Your task to perform on an android device: Open accessibility settings Image 0: 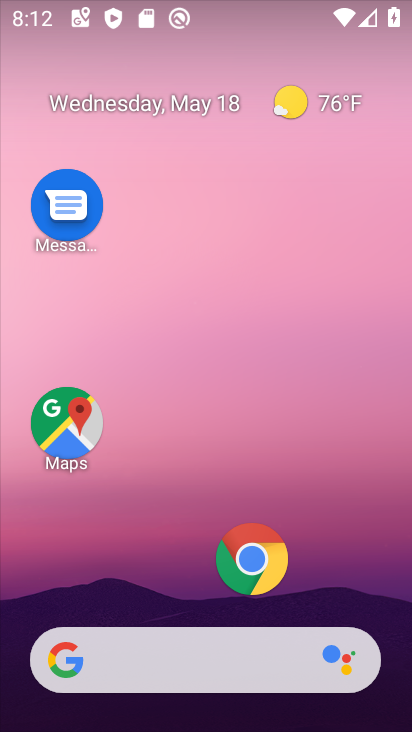
Step 0: drag from (203, 618) to (193, 116)
Your task to perform on an android device: Open accessibility settings Image 1: 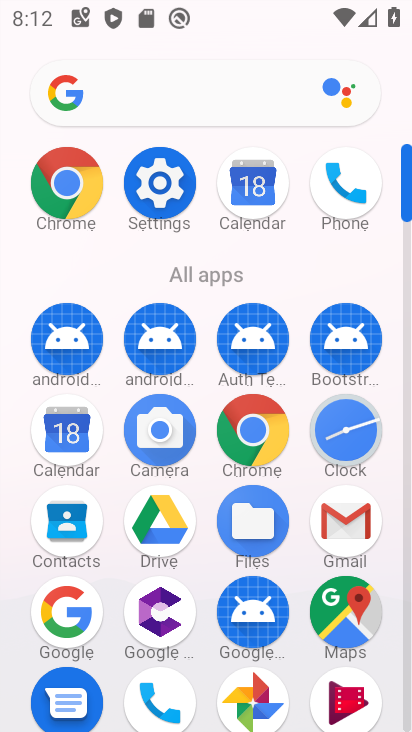
Step 1: click (163, 179)
Your task to perform on an android device: Open accessibility settings Image 2: 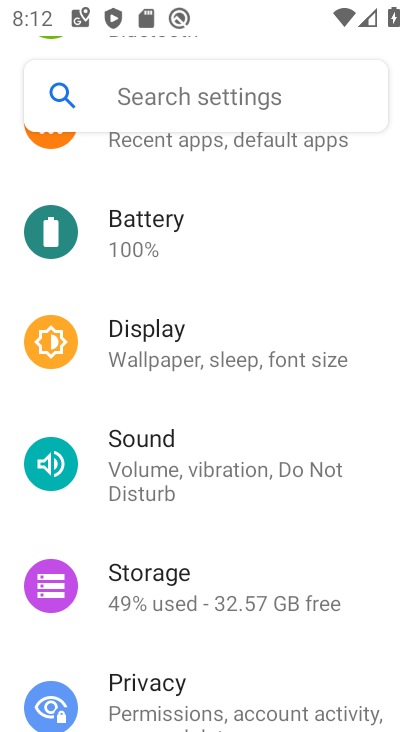
Step 2: drag from (289, 458) to (262, 59)
Your task to perform on an android device: Open accessibility settings Image 3: 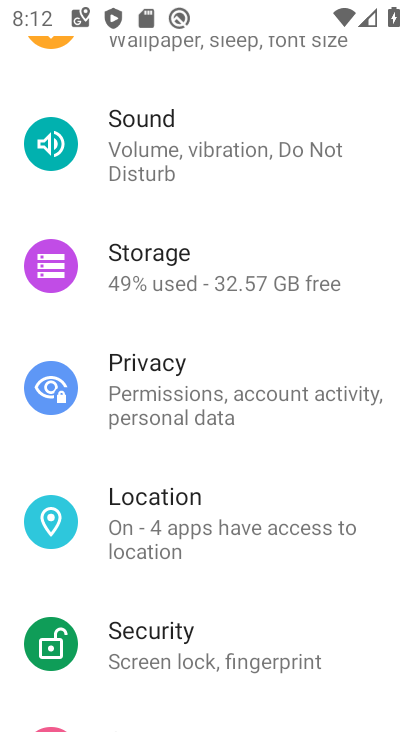
Step 3: drag from (226, 576) to (178, 111)
Your task to perform on an android device: Open accessibility settings Image 4: 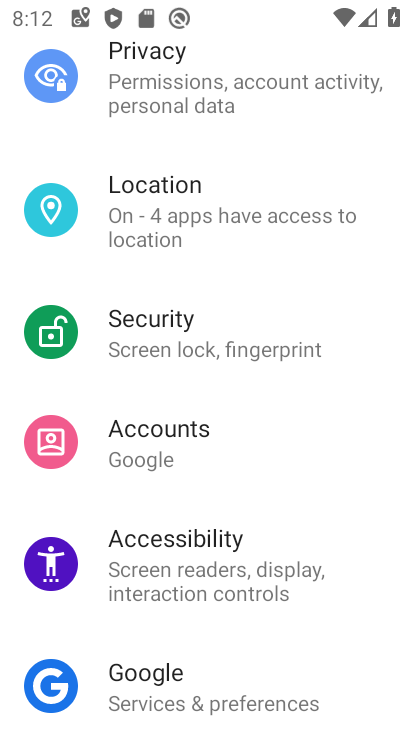
Step 4: click (180, 555)
Your task to perform on an android device: Open accessibility settings Image 5: 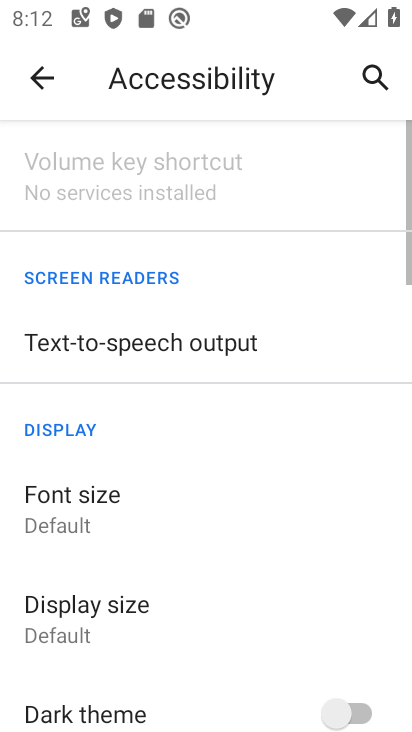
Step 5: task complete